Your task to perform on an android device: open sync settings in chrome Image 0: 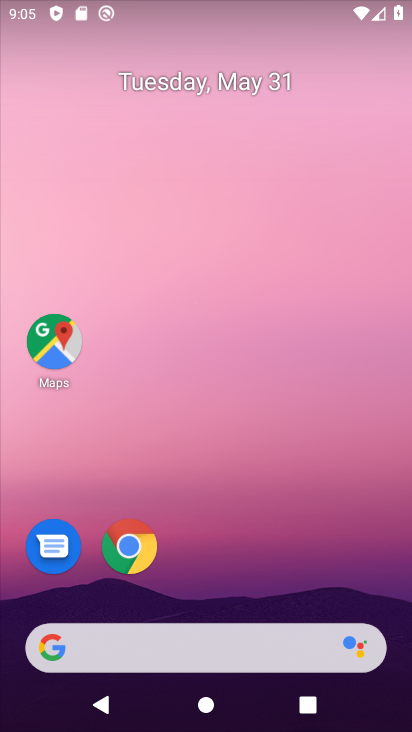
Step 0: click (126, 552)
Your task to perform on an android device: open sync settings in chrome Image 1: 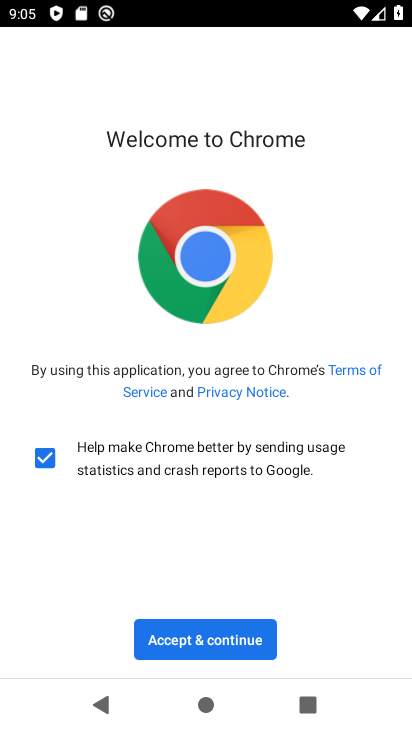
Step 1: click (233, 636)
Your task to perform on an android device: open sync settings in chrome Image 2: 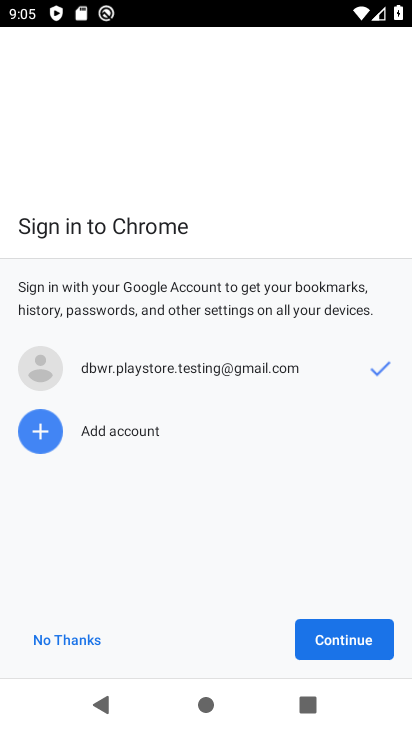
Step 2: click (354, 637)
Your task to perform on an android device: open sync settings in chrome Image 3: 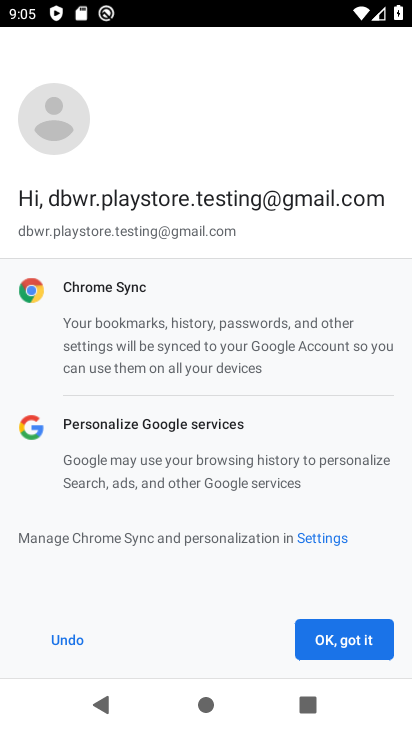
Step 3: click (354, 637)
Your task to perform on an android device: open sync settings in chrome Image 4: 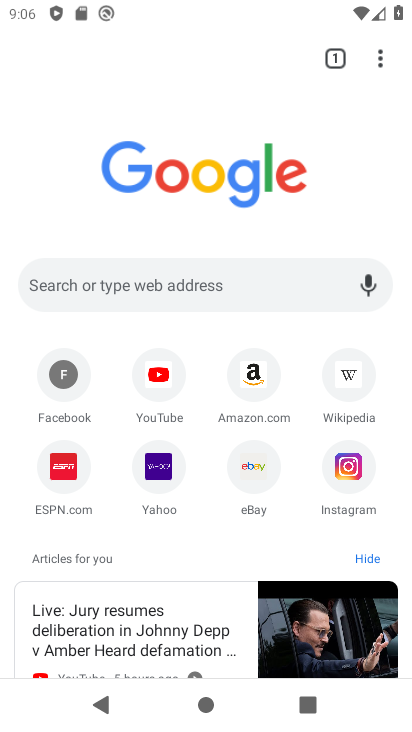
Step 4: click (385, 54)
Your task to perform on an android device: open sync settings in chrome Image 5: 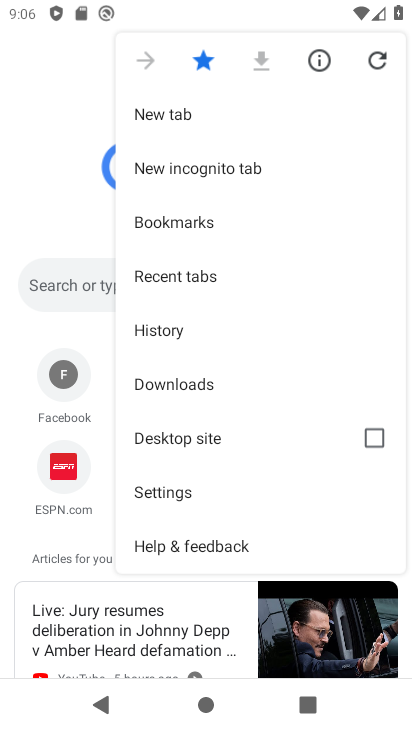
Step 5: click (161, 487)
Your task to perform on an android device: open sync settings in chrome Image 6: 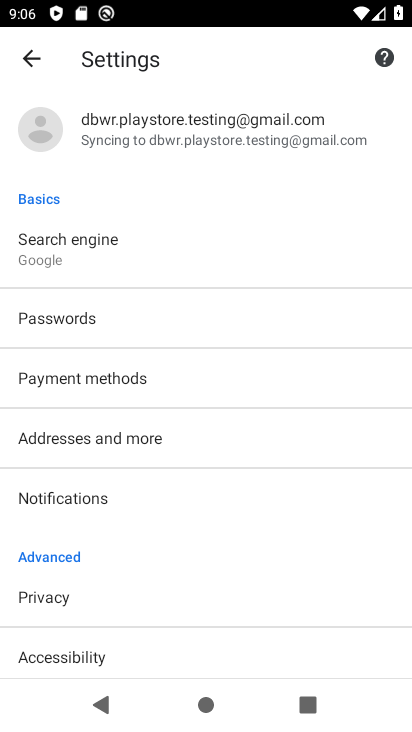
Step 6: drag from (196, 573) to (204, 272)
Your task to perform on an android device: open sync settings in chrome Image 7: 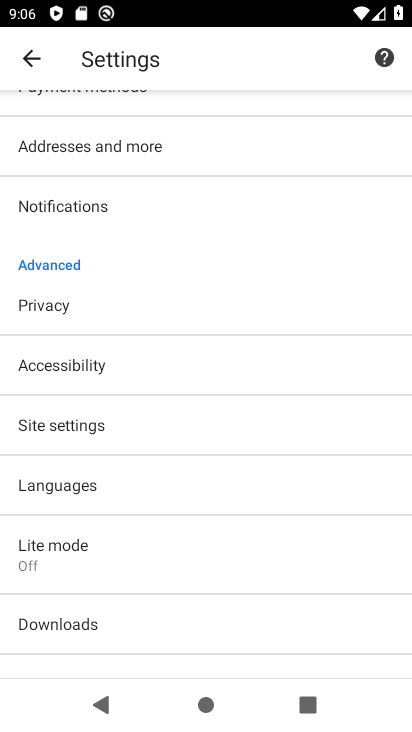
Step 7: drag from (286, 216) to (277, 553)
Your task to perform on an android device: open sync settings in chrome Image 8: 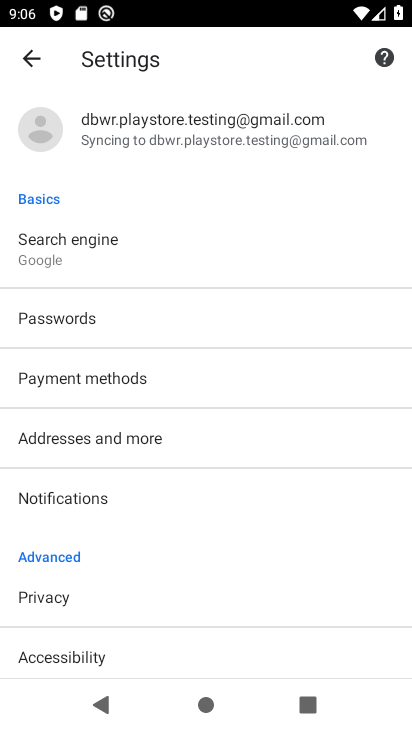
Step 8: click (216, 132)
Your task to perform on an android device: open sync settings in chrome Image 9: 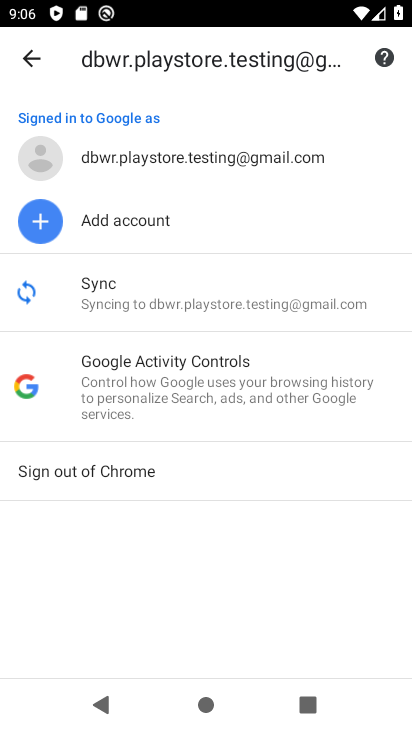
Step 9: click (146, 301)
Your task to perform on an android device: open sync settings in chrome Image 10: 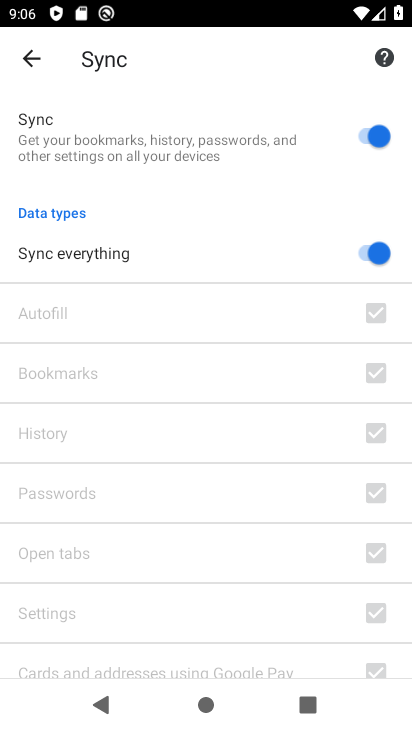
Step 10: task complete